Your task to perform on an android device: Toggle the flashlight Image 0: 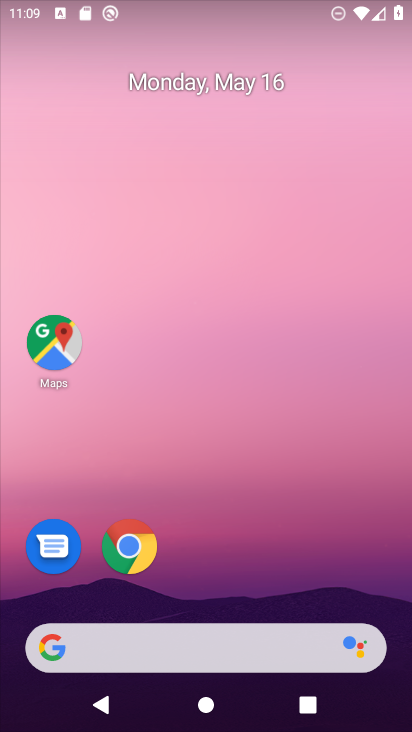
Step 0: drag from (218, 613) to (297, 88)
Your task to perform on an android device: Toggle the flashlight Image 1: 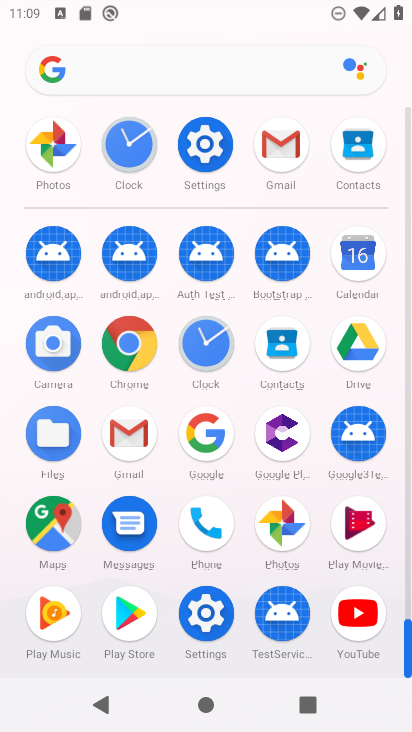
Step 1: click (226, 149)
Your task to perform on an android device: Toggle the flashlight Image 2: 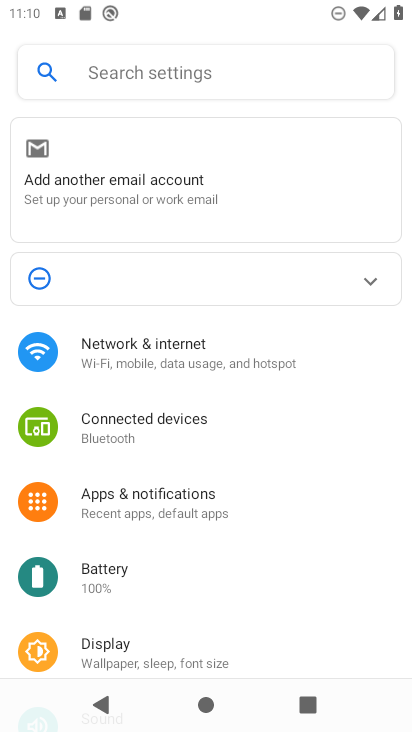
Step 2: task complete